Your task to perform on an android device: Open the phone app and click the voicemail tab. Image 0: 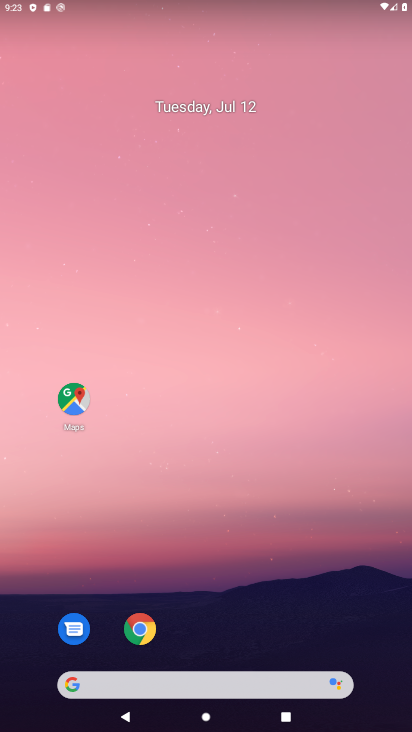
Step 0: drag from (224, 689) to (270, 13)
Your task to perform on an android device: Open the phone app and click the voicemail tab. Image 1: 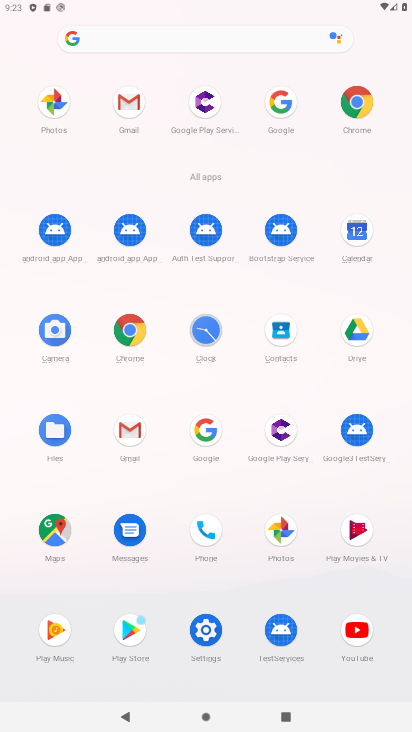
Step 1: click (210, 528)
Your task to perform on an android device: Open the phone app and click the voicemail tab. Image 2: 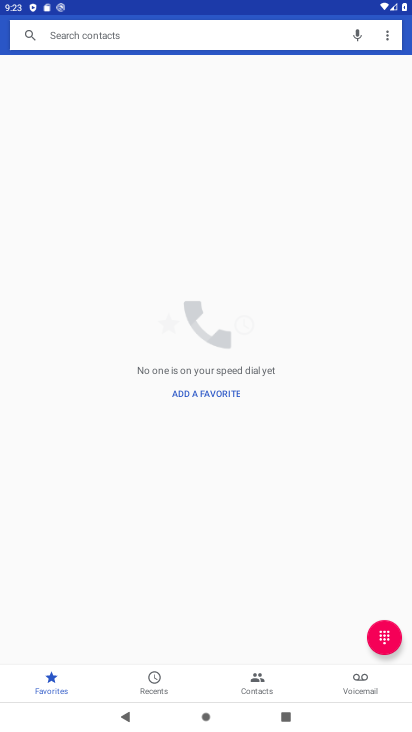
Step 2: click (357, 685)
Your task to perform on an android device: Open the phone app and click the voicemail tab. Image 3: 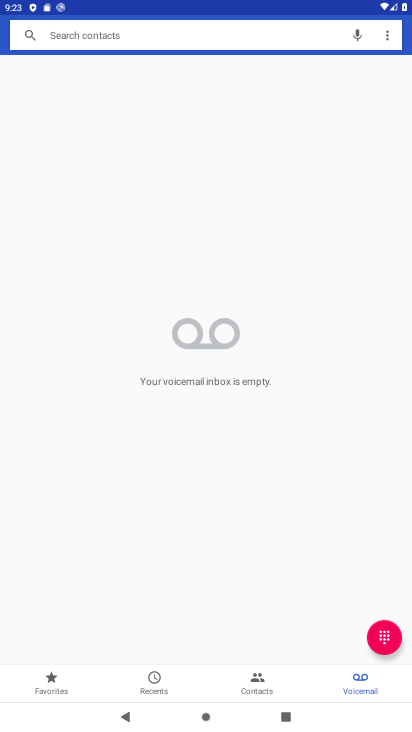
Step 3: task complete